Your task to perform on an android device: Search for vegetarian restaurants on Maps Image 0: 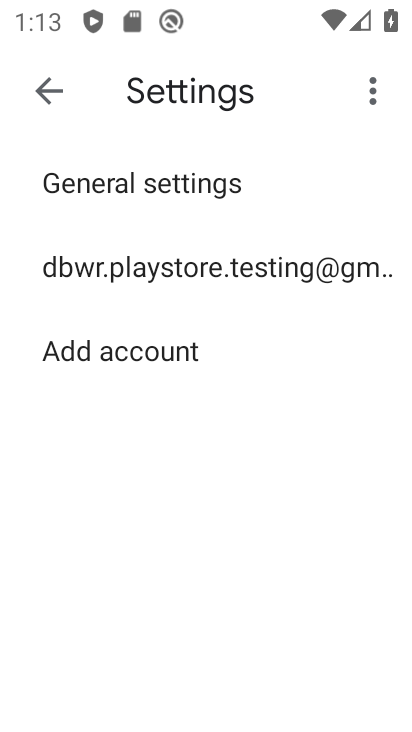
Step 0: press home button
Your task to perform on an android device: Search for vegetarian restaurants on Maps Image 1: 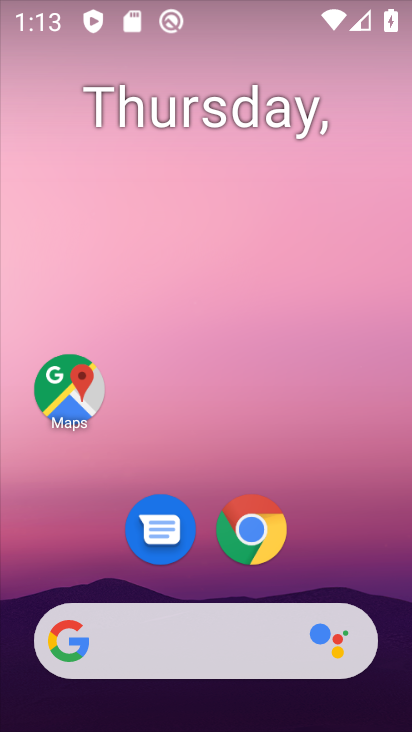
Step 1: drag from (185, 694) to (184, 148)
Your task to perform on an android device: Search for vegetarian restaurants on Maps Image 2: 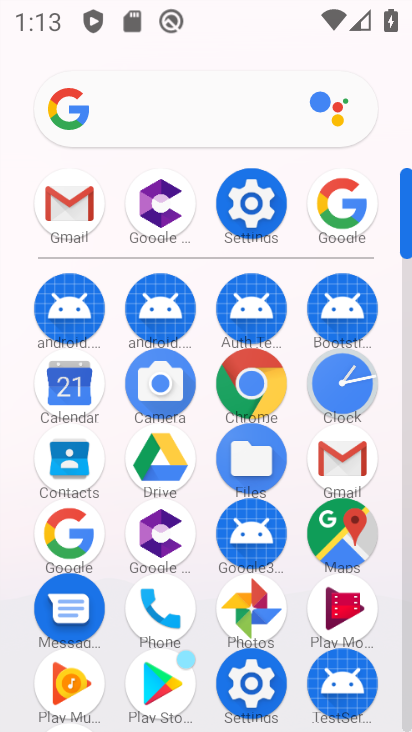
Step 2: click (335, 537)
Your task to perform on an android device: Search for vegetarian restaurants on Maps Image 3: 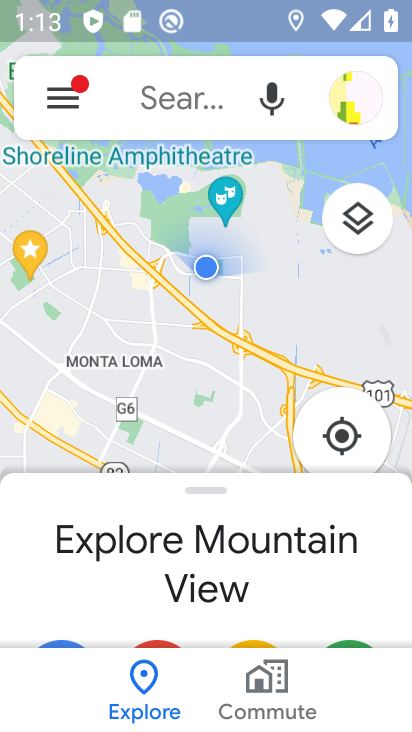
Step 3: click (156, 106)
Your task to perform on an android device: Search for vegetarian restaurants on Maps Image 4: 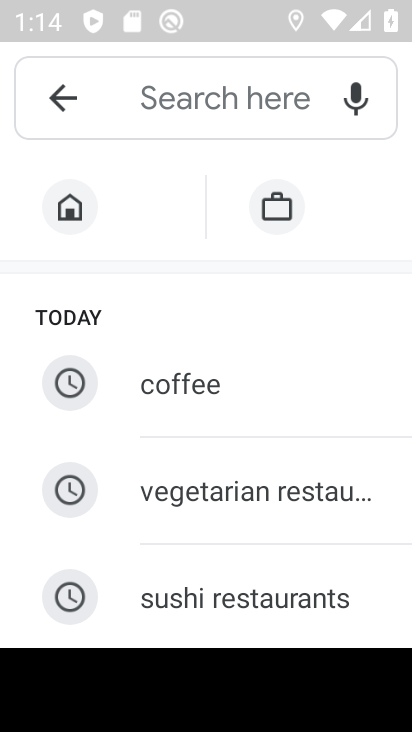
Step 4: type "vegetarian restaurants"
Your task to perform on an android device: Search for vegetarian restaurants on Maps Image 5: 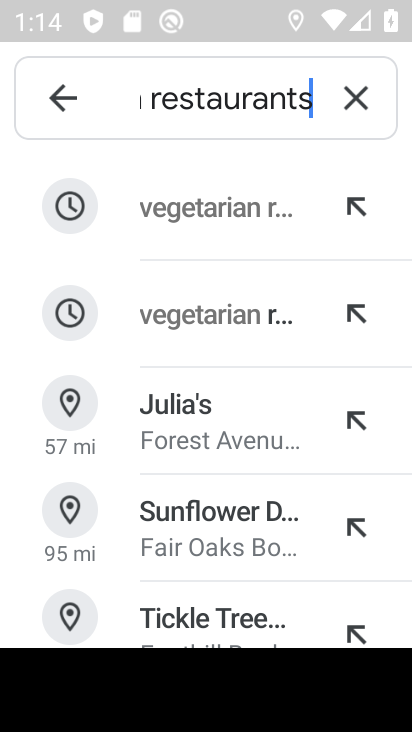
Step 5: click (232, 201)
Your task to perform on an android device: Search for vegetarian restaurants on Maps Image 6: 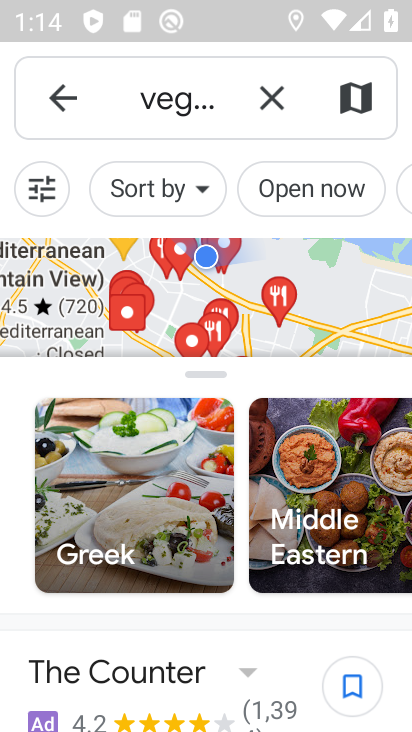
Step 6: task complete